Your task to perform on an android device: read, delete, or share a saved page in the chrome app Image 0: 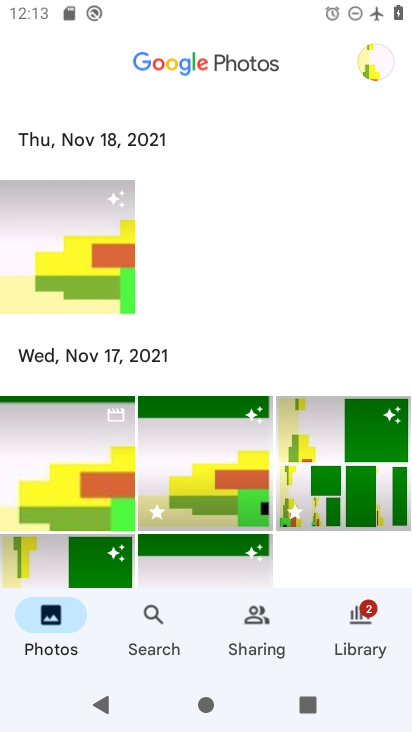
Step 0: press home button
Your task to perform on an android device: read, delete, or share a saved page in the chrome app Image 1: 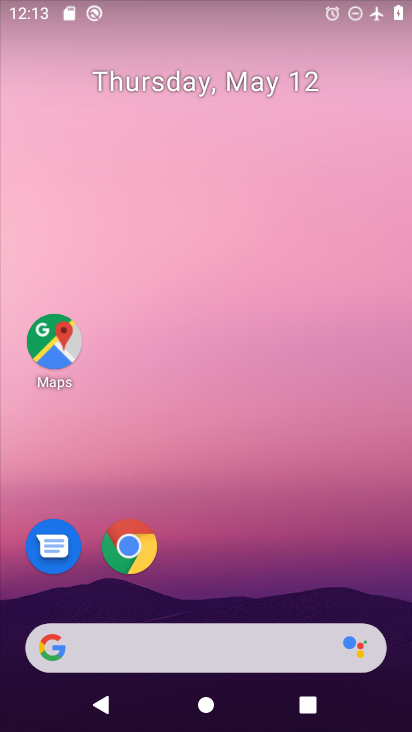
Step 1: drag from (400, 620) to (294, 82)
Your task to perform on an android device: read, delete, or share a saved page in the chrome app Image 2: 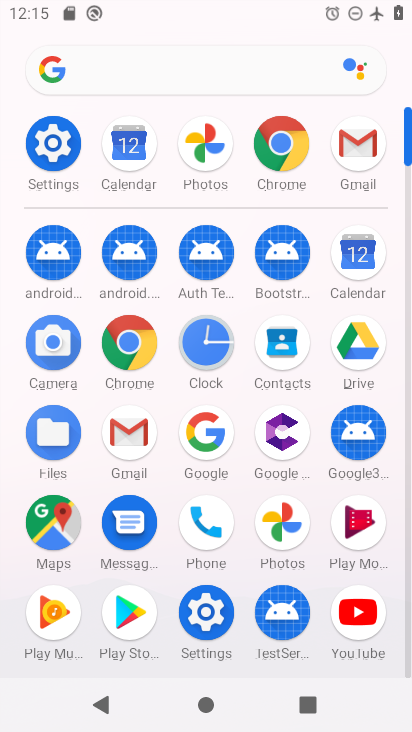
Step 2: click (116, 363)
Your task to perform on an android device: read, delete, or share a saved page in the chrome app Image 3: 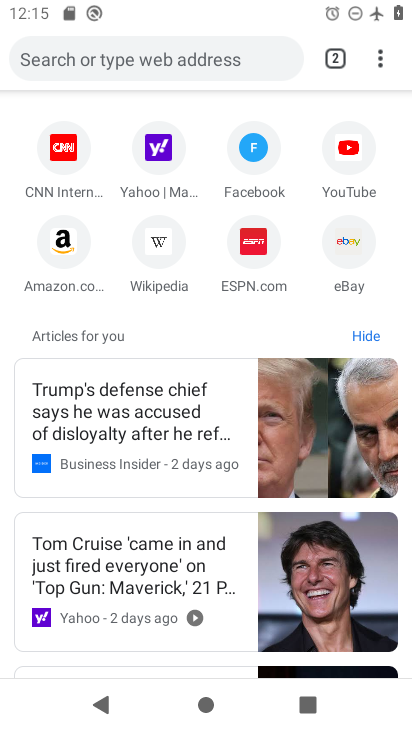
Step 3: task complete